Your task to perform on an android device: Go to Maps Image 0: 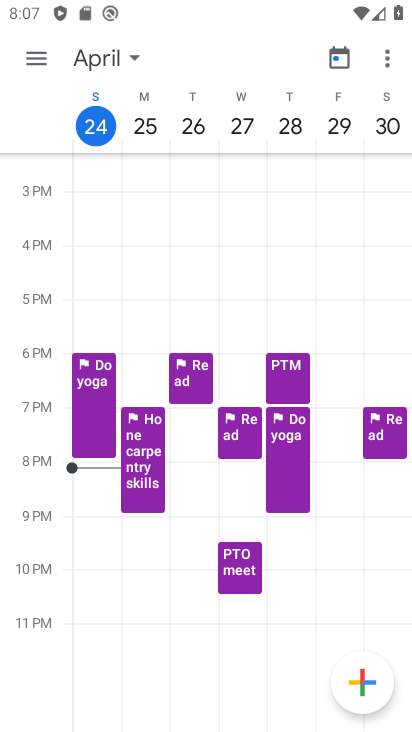
Step 0: press home button
Your task to perform on an android device: Go to Maps Image 1: 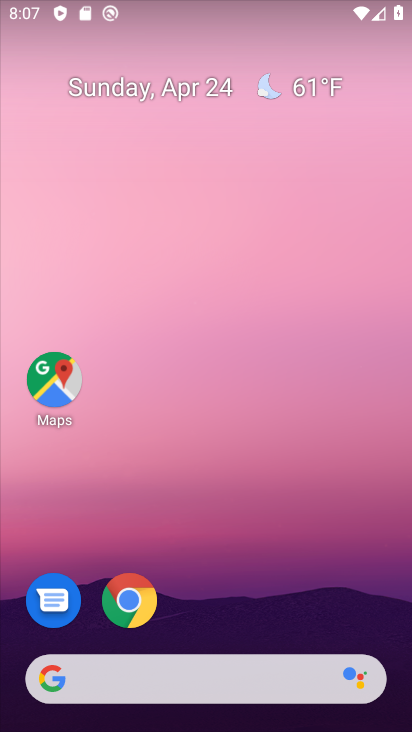
Step 1: drag from (223, 710) to (223, 154)
Your task to perform on an android device: Go to Maps Image 2: 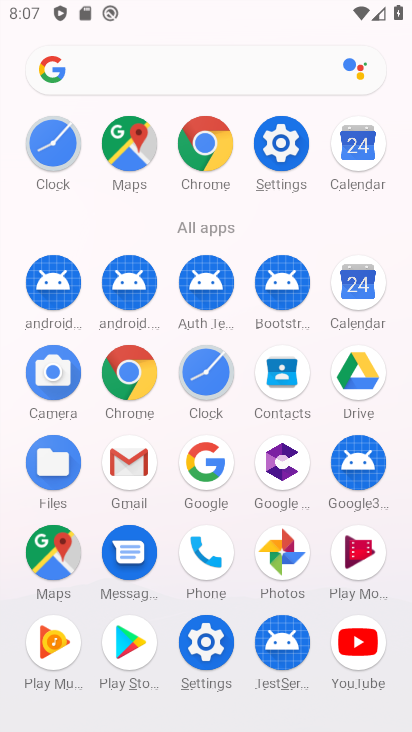
Step 2: click (55, 552)
Your task to perform on an android device: Go to Maps Image 3: 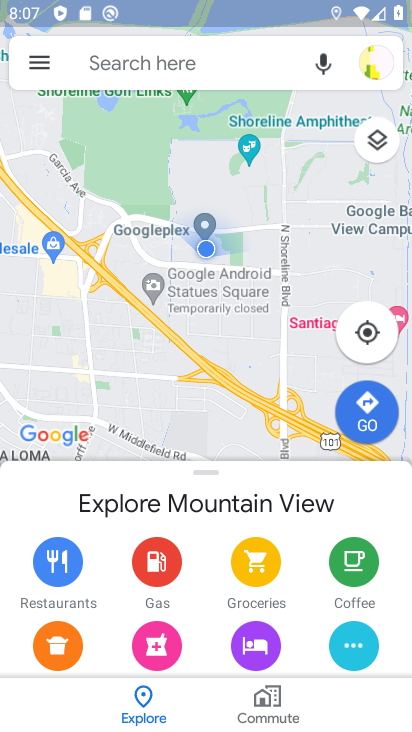
Step 3: task complete